Your task to perform on an android device: Show the shopping cart on amazon. Image 0: 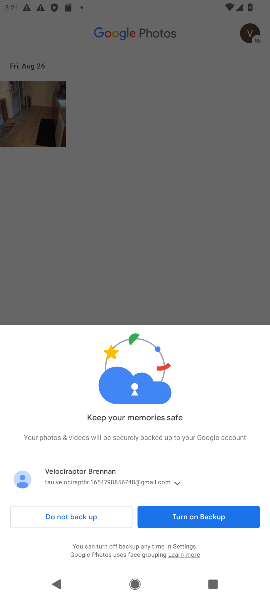
Step 0: press home button
Your task to perform on an android device: Show the shopping cart on amazon. Image 1: 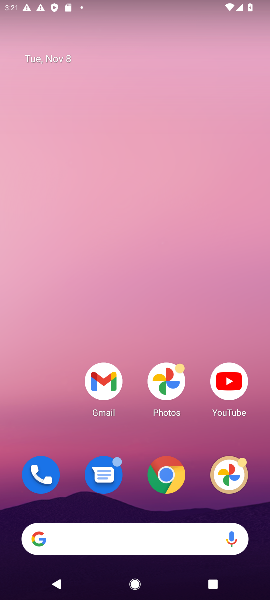
Step 1: drag from (118, 510) to (146, 95)
Your task to perform on an android device: Show the shopping cart on amazon. Image 2: 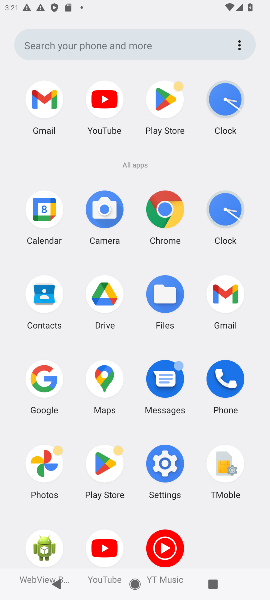
Step 2: click (43, 370)
Your task to perform on an android device: Show the shopping cart on amazon. Image 3: 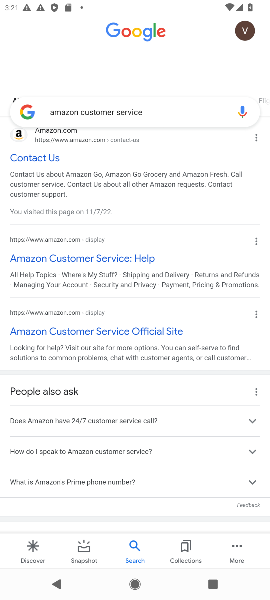
Step 3: click (130, 104)
Your task to perform on an android device: Show the shopping cart on amazon. Image 4: 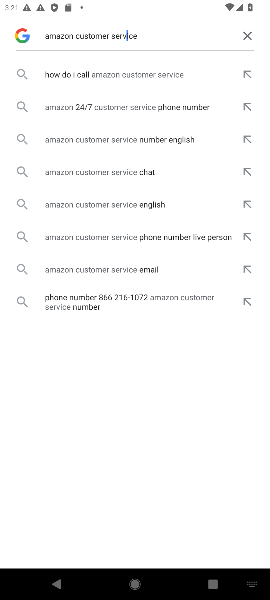
Step 4: click (246, 38)
Your task to perform on an android device: Show the shopping cart on amazon. Image 5: 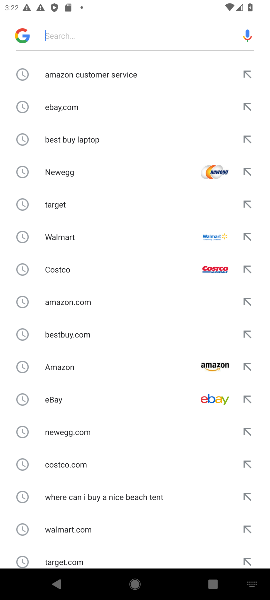
Step 5: click (57, 367)
Your task to perform on an android device: Show the shopping cart on amazon. Image 6: 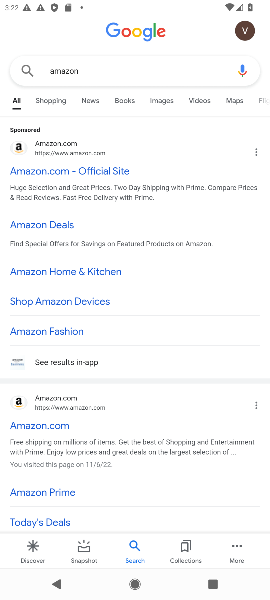
Step 6: click (21, 143)
Your task to perform on an android device: Show the shopping cart on amazon. Image 7: 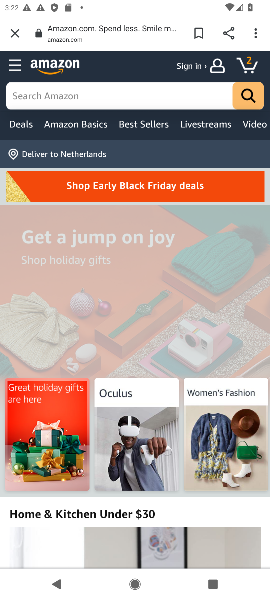
Step 7: click (246, 62)
Your task to perform on an android device: Show the shopping cart on amazon. Image 8: 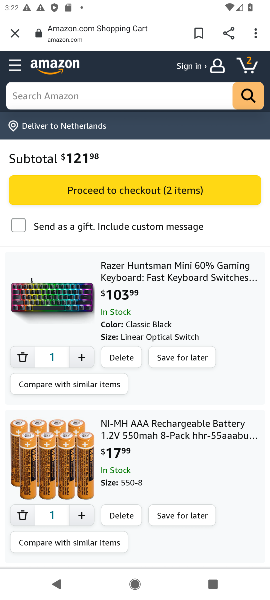
Step 8: task complete